Your task to perform on an android device: open app "Microsoft Excel" (install if not already installed) Image 0: 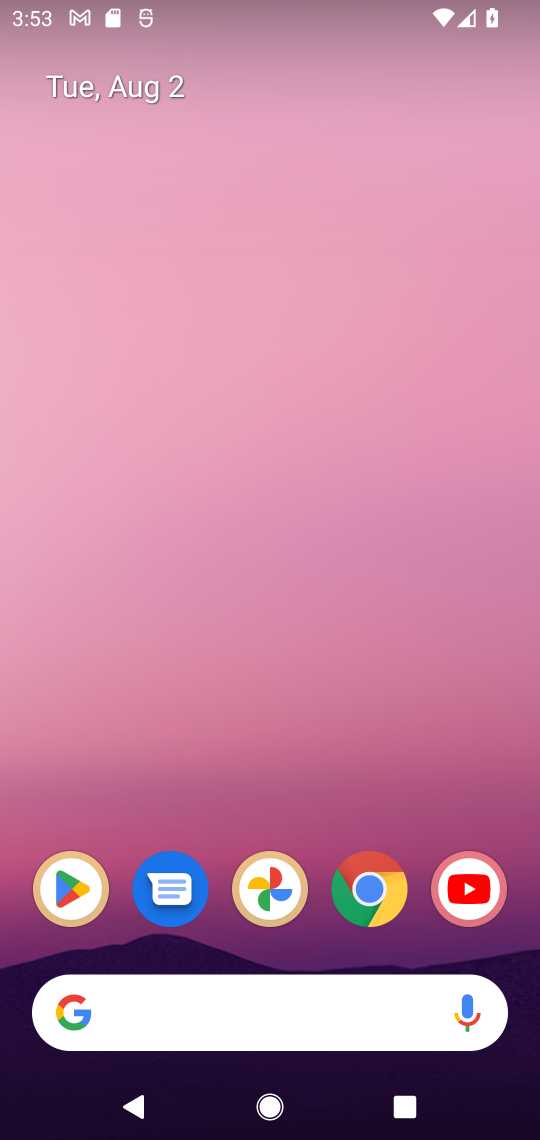
Step 0: press home button
Your task to perform on an android device: open app "Microsoft Excel" (install if not already installed) Image 1: 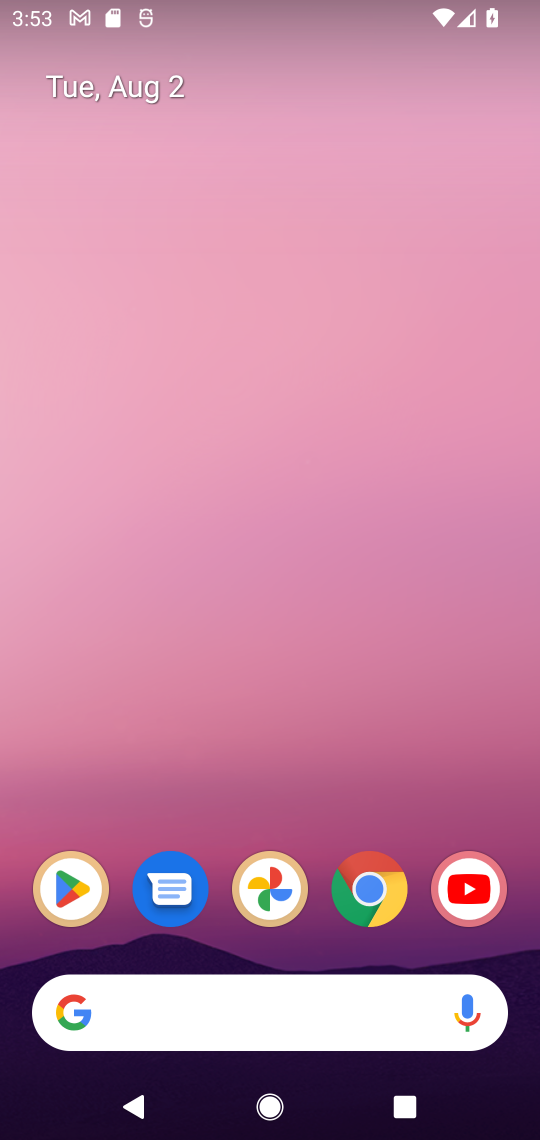
Step 1: drag from (514, 793) to (464, 66)
Your task to perform on an android device: open app "Microsoft Excel" (install if not already installed) Image 2: 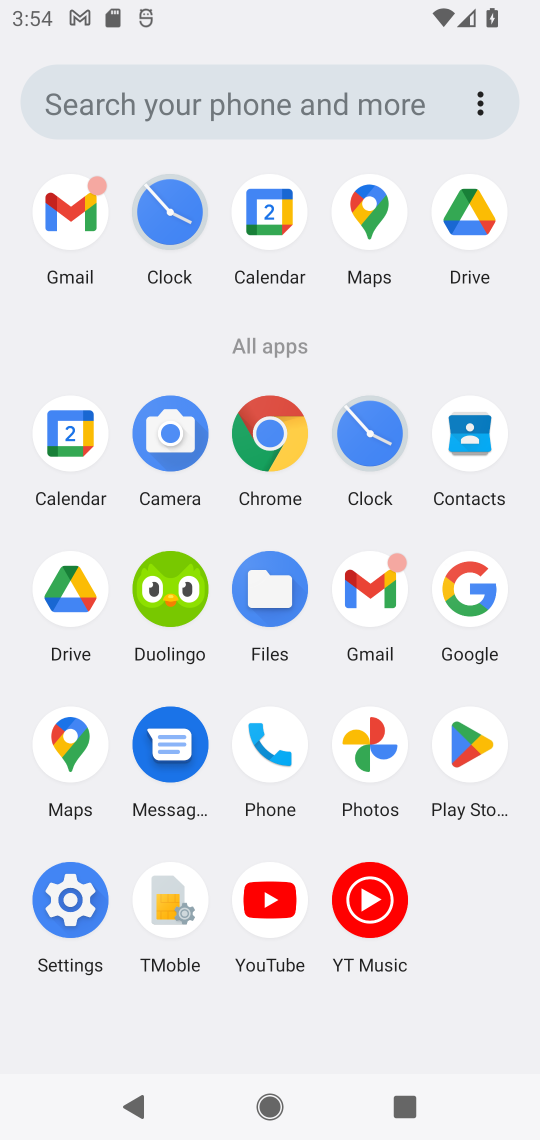
Step 2: click (455, 766)
Your task to perform on an android device: open app "Microsoft Excel" (install if not already installed) Image 3: 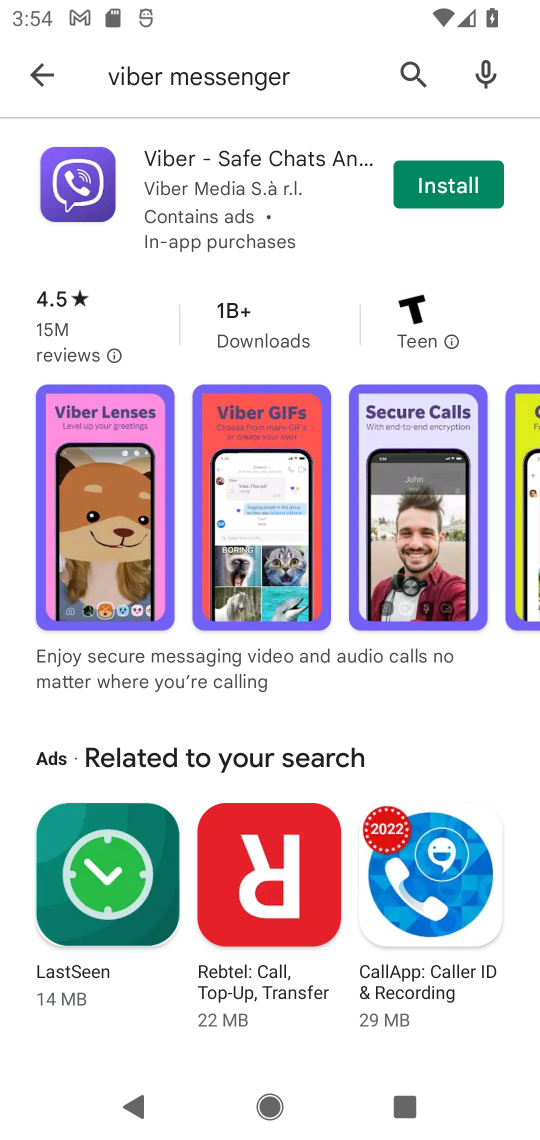
Step 3: click (404, 66)
Your task to perform on an android device: open app "Microsoft Excel" (install if not already installed) Image 4: 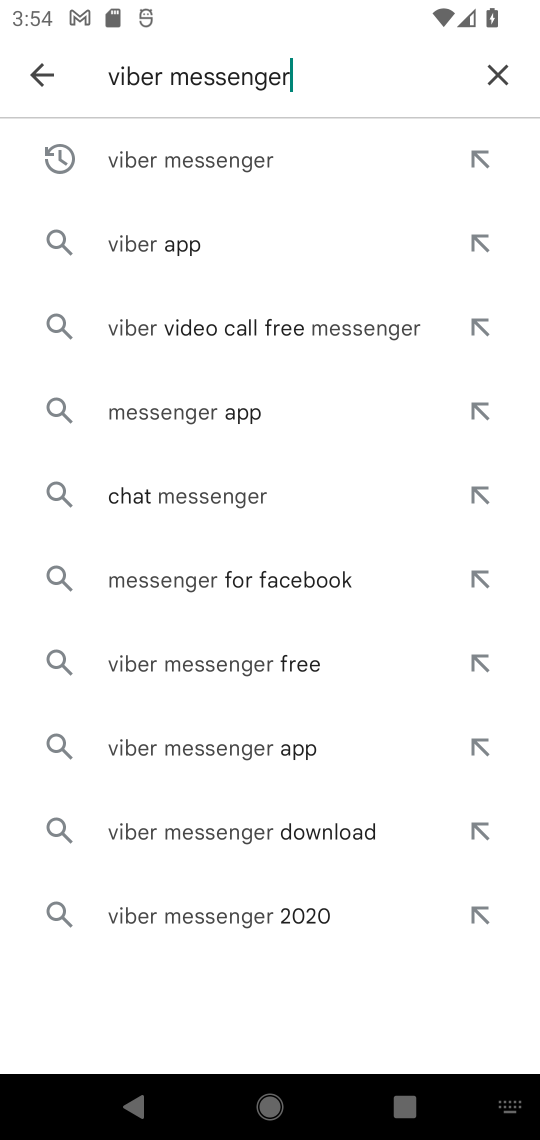
Step 4: click (488, 77)
Your task to perform on an android device: open app "Microsoft Excel" (install if not already installed) Image 5: 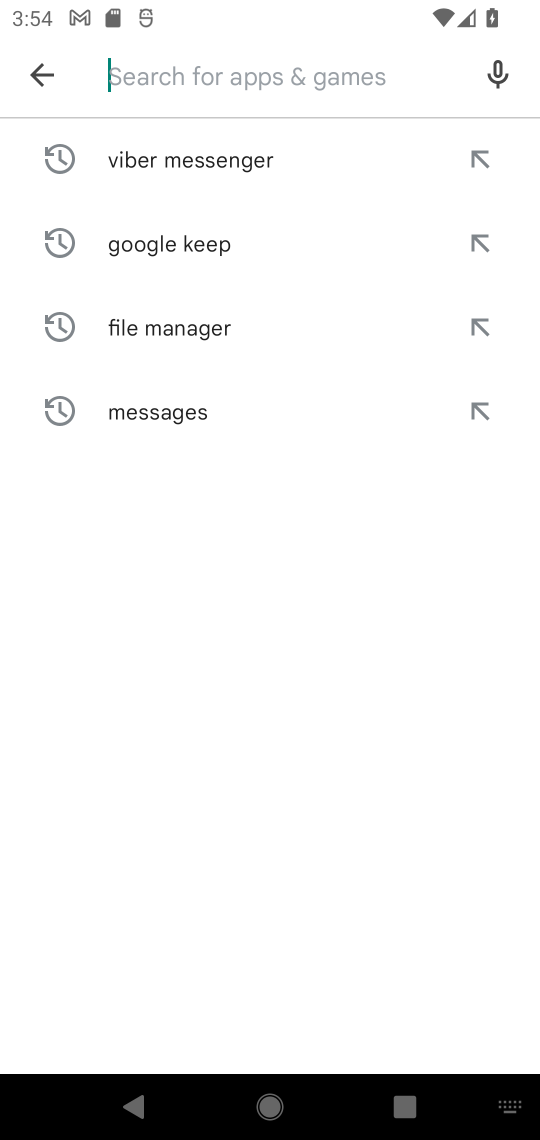
Step 5: type "microsoft excel"
Your task to perform on an android device: open app "Microsoft Excel" (install if not already installed) Image 6: 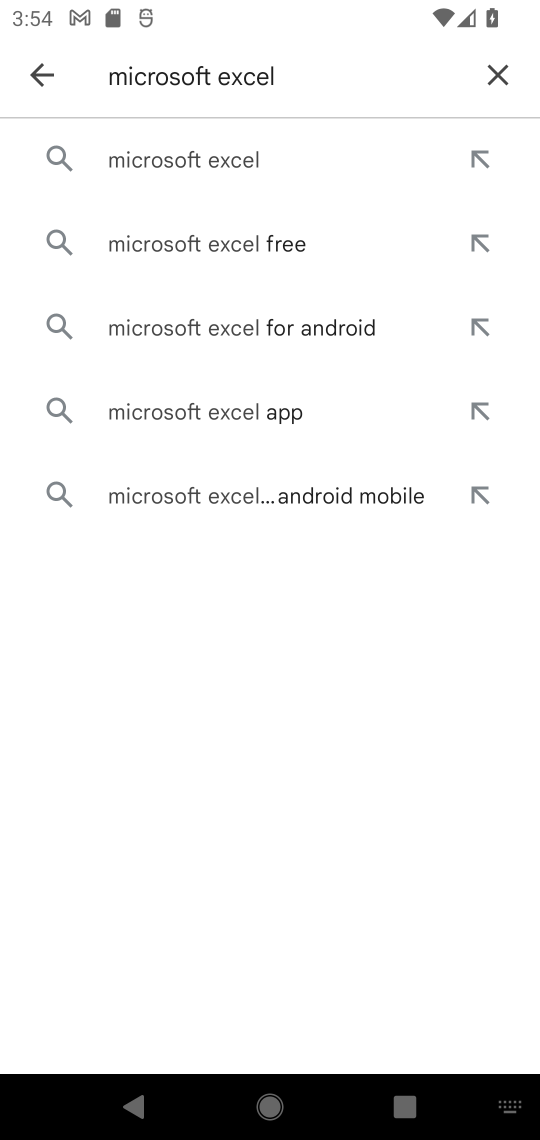
Step 6: click (231, 161)
Your task to perform on an android device: open app "Microsoft Excel" (install if not already installed) Image 7: 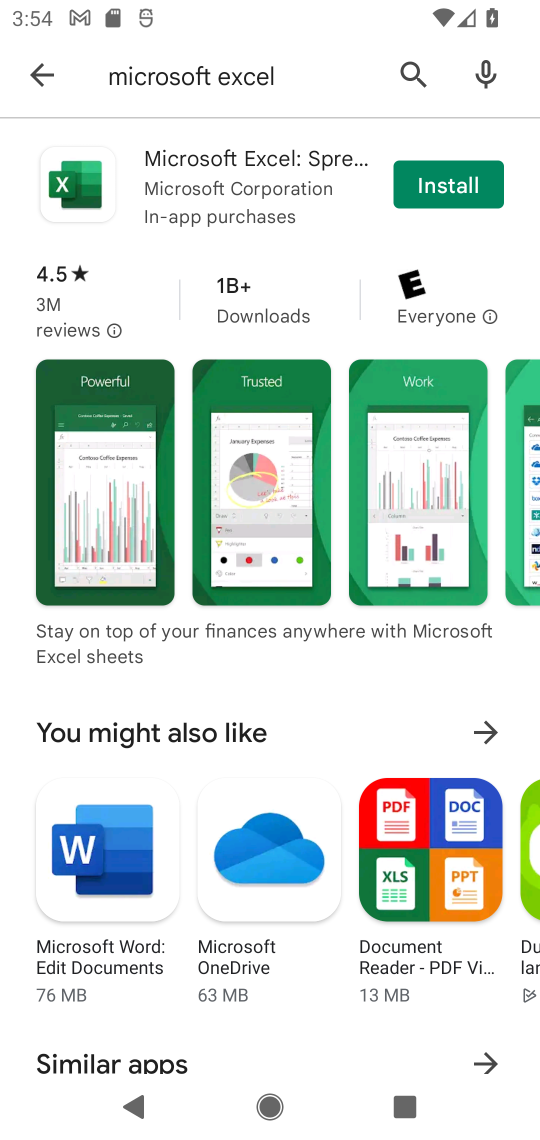
Step 7: click (457, 177)
Your task to perform on an android device: open app "Microsoft Excel" (install if not already installed) Image 8: 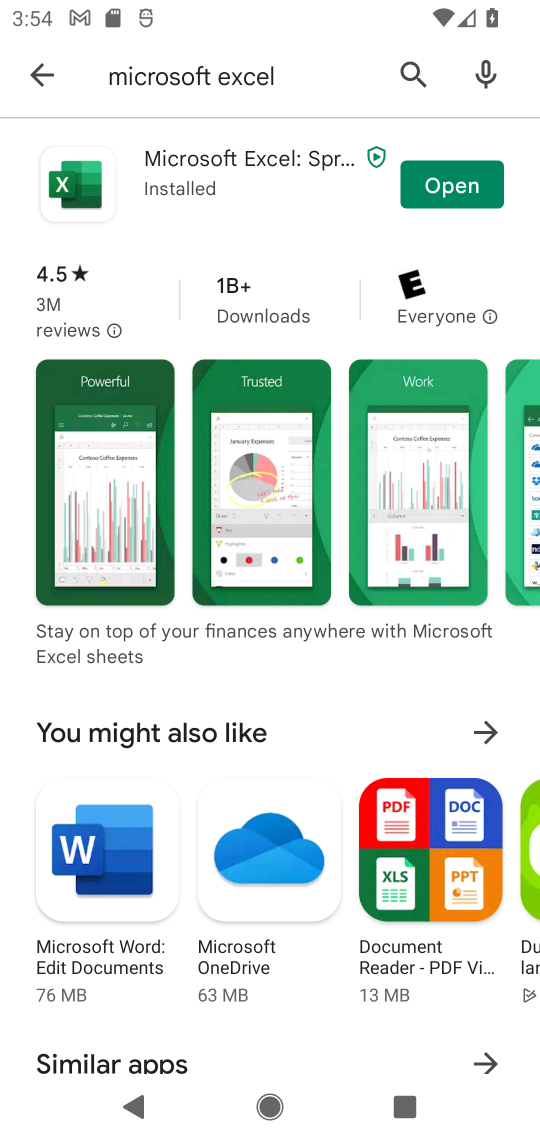
Step 8: click (449, 186)
Your task to perform on an android device: open app "Microsoft Excel" (install if not already installed) Image 9: 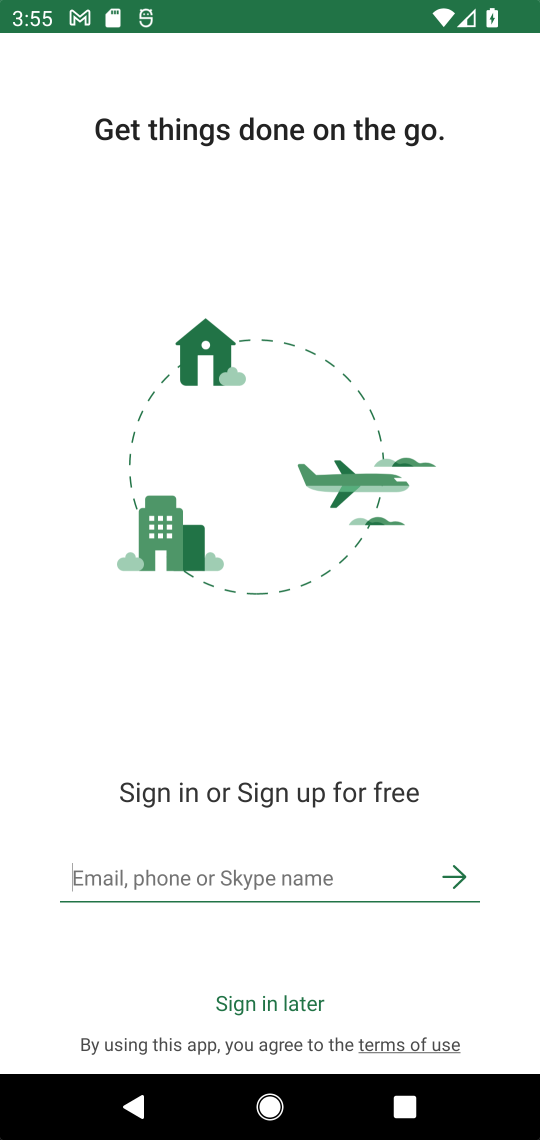
Step 9: task complete